Your task to perform on an android device: check battery use Image 0: 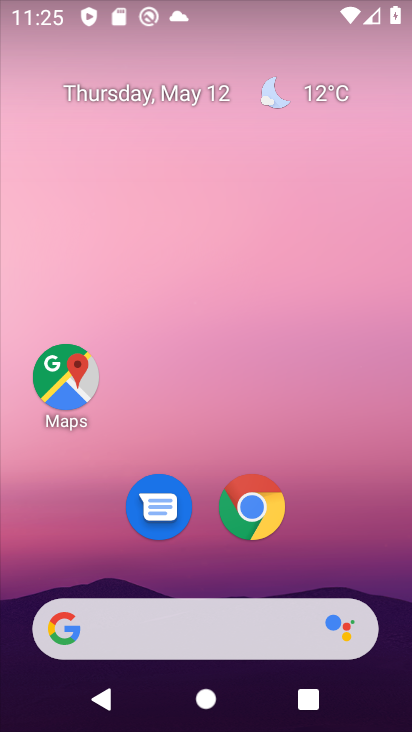
Step 0: drag from (198, 558) to (142, 48)
Your task to perform on an android device: check battery use Image 1: 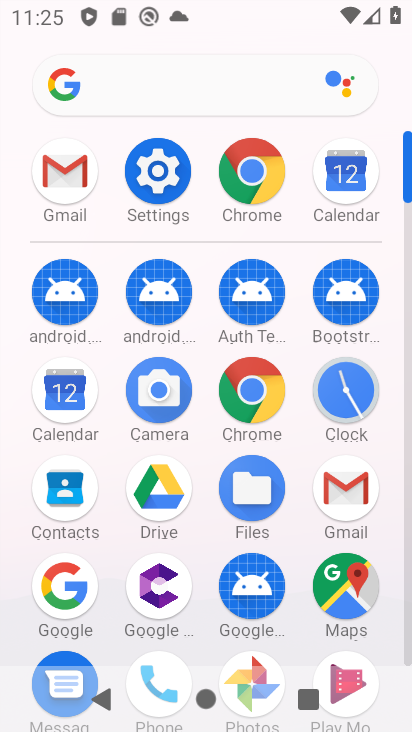
Step 1: click (177, 190)
Your task to perform on an android device: check battery use Image 2: 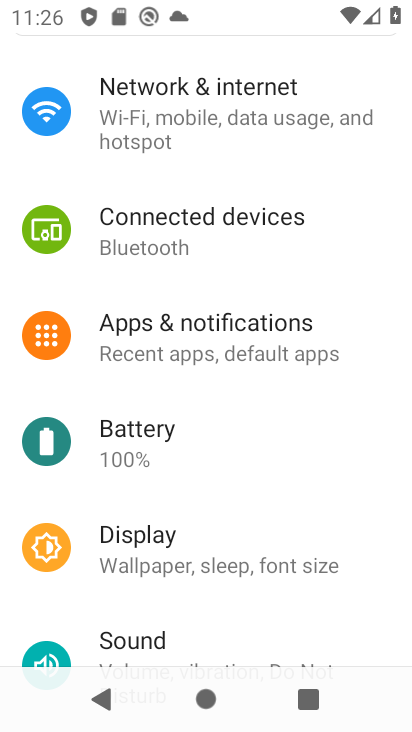
Step 2: click (176, 458)
Your task to perform on an android device: check battery use Image 3: 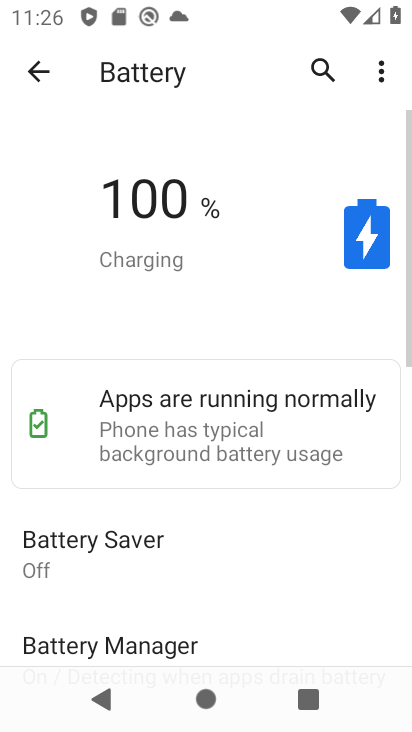
Step 3: drag from (207, 561) to (208, 434)
Your task to perform on an android device: check battery use Image 4: 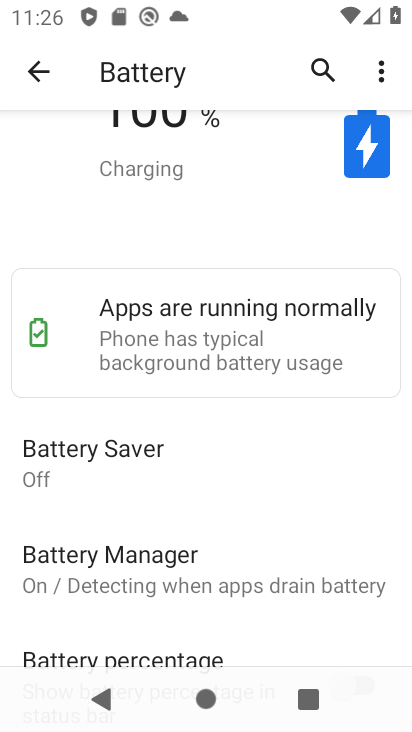
Step 4: click (393, 75)
Your task to perform on an android device: check battery use Image 5: 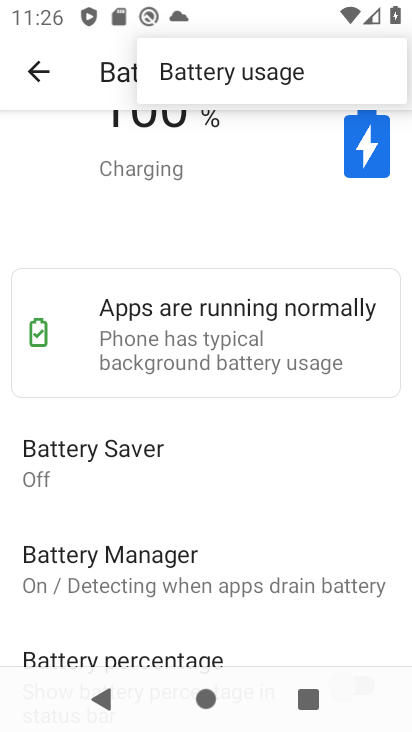
Step 5: click (262, 73)
Your task to perform on an android device: check battery use Image 6: 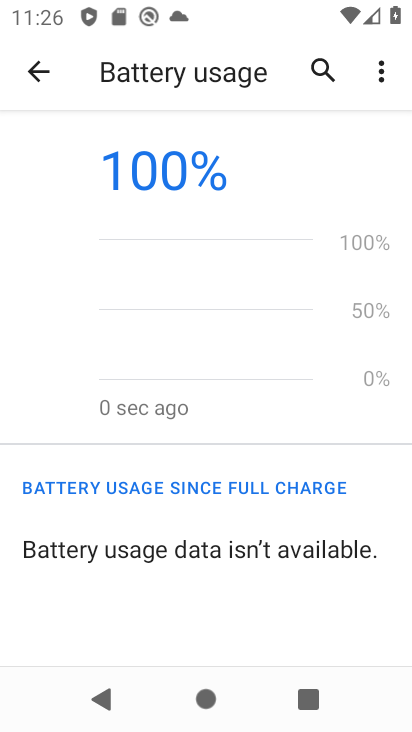
Step 6: task complete